Your task to perform on an android device: create a new album in the google photos Image 0: 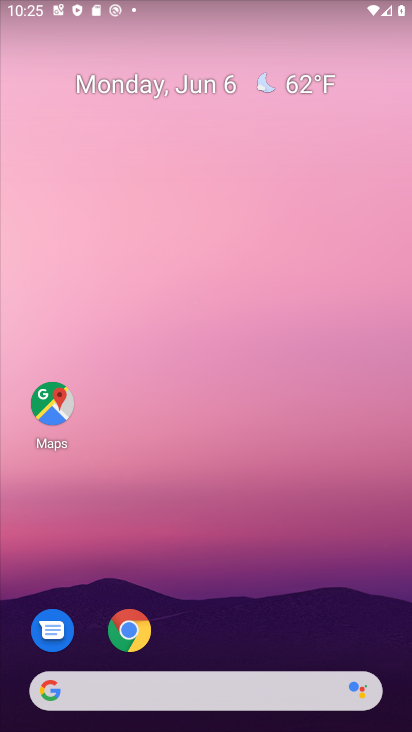
Step 0: drag from (304, 604) to (319, 61)
Your task to perform on an android device: create a new album in the google photos Image 1: 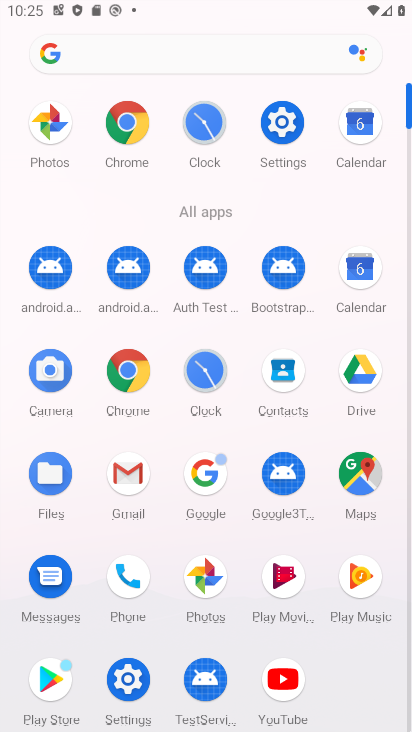
Step 1: click (208, 573)
Your task to perform on an android device: create a new album in the google photos Image 2: 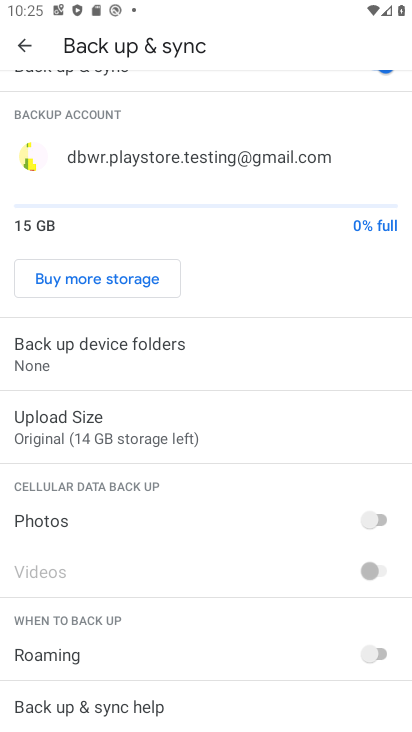
Step 2: click (29, 51)
Your task to perform on an android device: create a new album in the google photos Image 3: 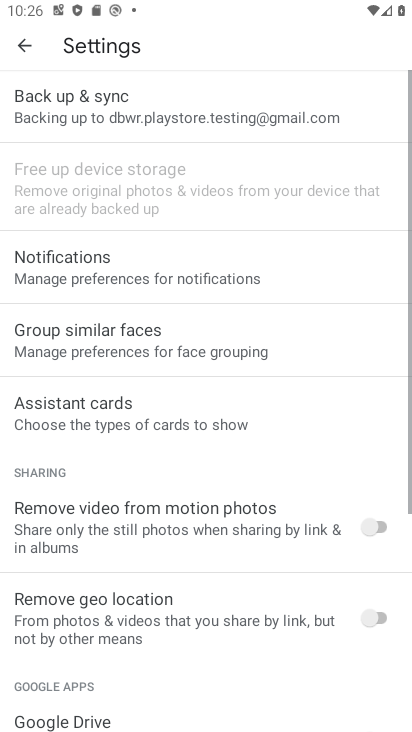
Step 3: click (29, 51)
Your task to perform on an android device: create a new album in the google photos Image 4: 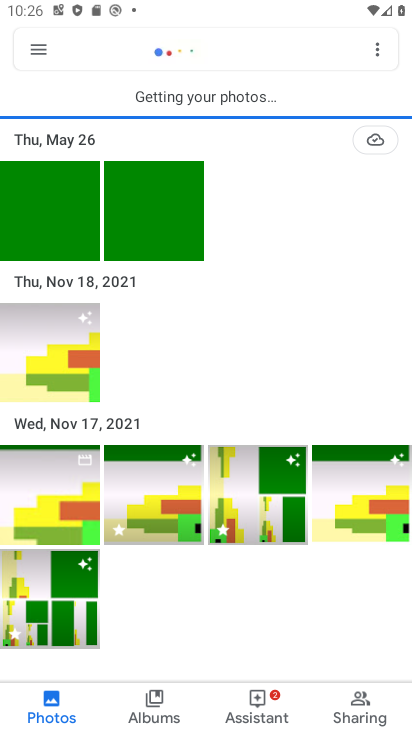
Step 4: drag from (197, 613) to (228, 339)
Your task to perform on an android device: create a new album in the google photos Image 5: 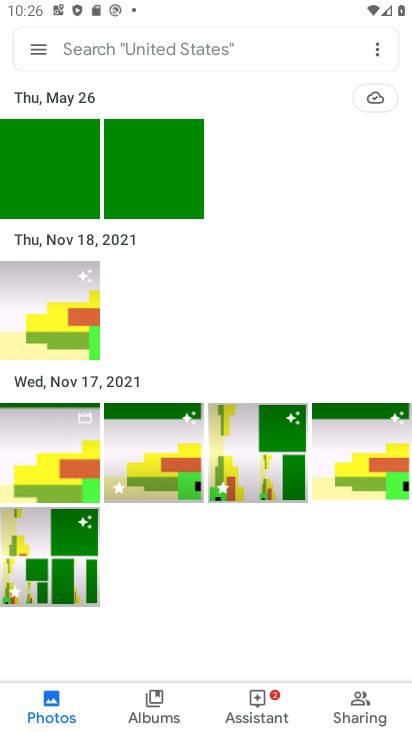
Step 5: click (170, 701)
Your task to perform on an android device: create a new album in the google photos Image 6: 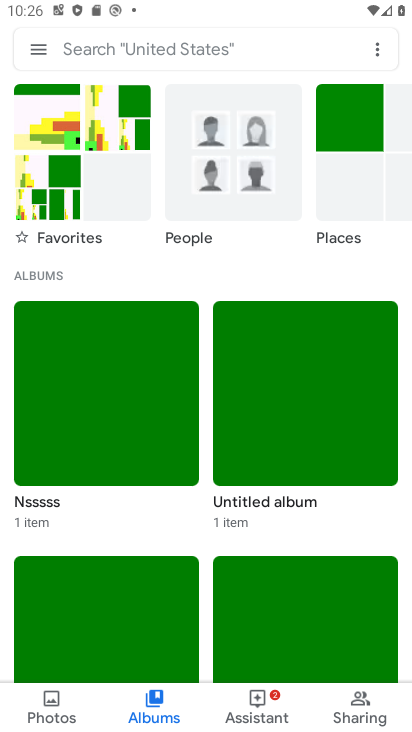
Step 6: task complete